Your task to perform on an android device: turn on priority inbox in the gmail app Image 0: 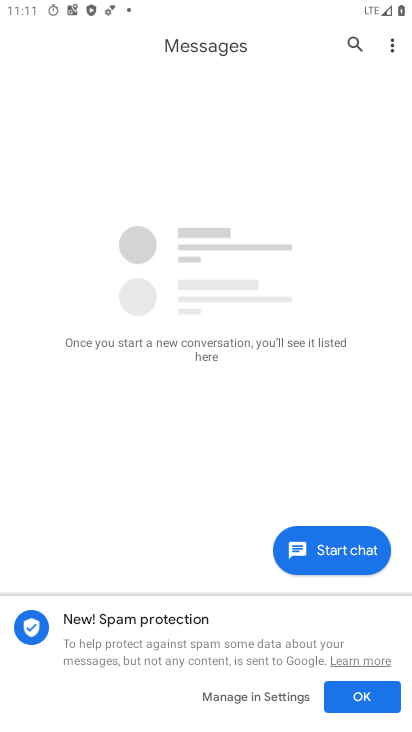
Step 0: press back button
Your task to perform on an android device: turn on priority inbox in the gmail app Image 1: 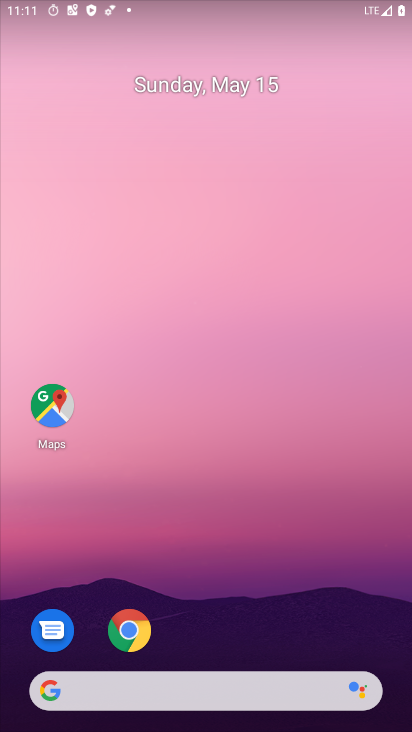
Step 1: drag from (226, 608) to (311, 85)
Your task to perform on an android device: turn on priority inbox in the gmail app Image 2: 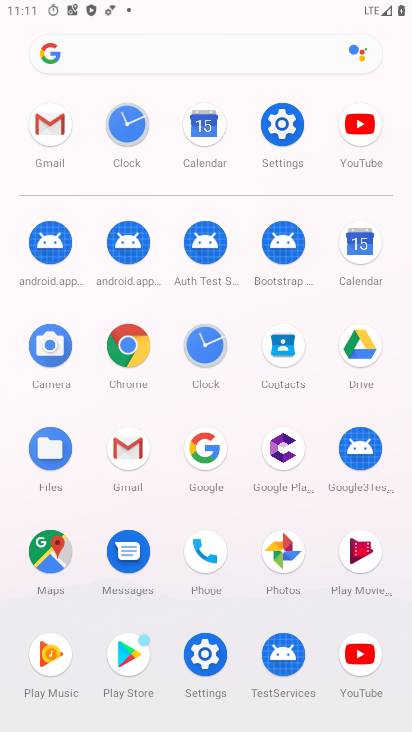
Step 2: click (128, 455)
Your task to perform on an android device: turn on priority inbox in the gmail app Image 3: 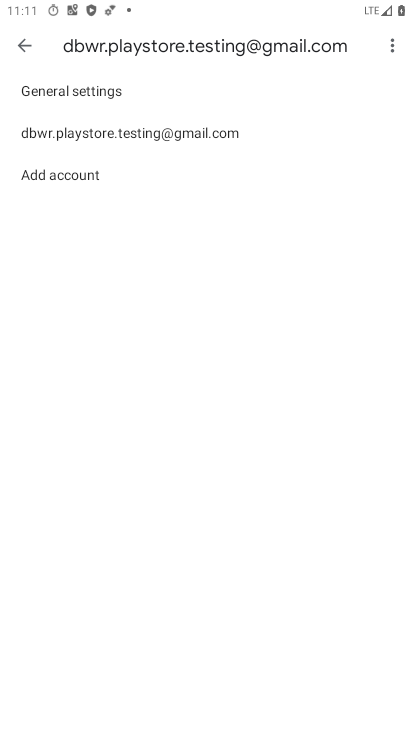
Step 3: click (105, 136)
Your task to perform on an android device: turn on priority inbox in the gmail app Image 4: 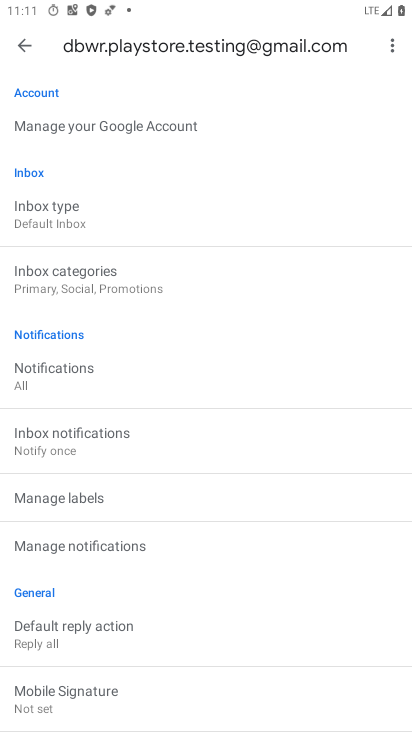
Step 4: click (92, 217)
Your task to perform on an android device: turn on priority inbox in the gmail app Image 5: 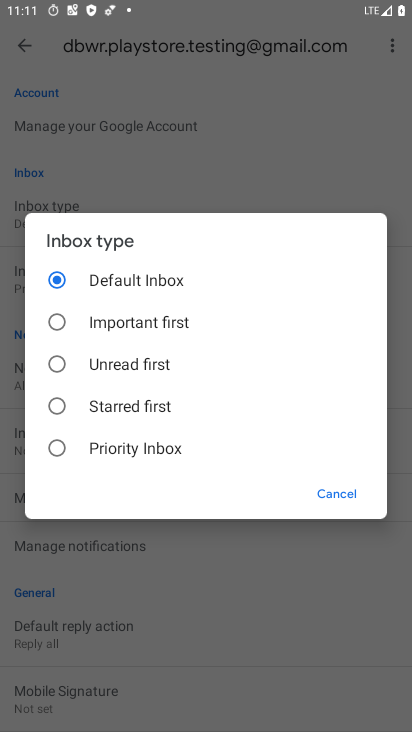
Step 5: click (45, 455)
Your task to perform on an android device: turn on priority inbox in the gmail app Image 6: 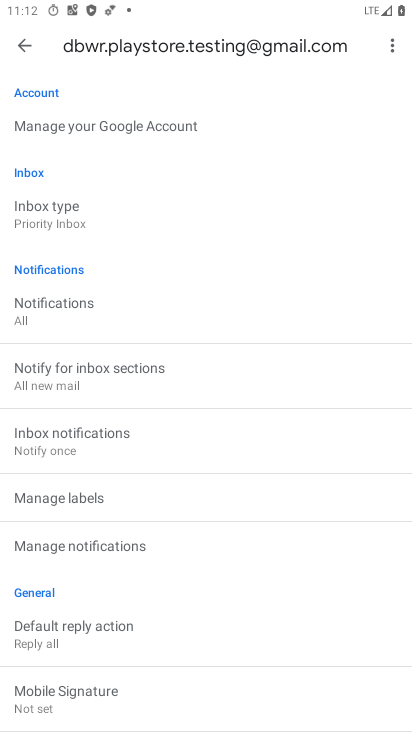
Step 6: task complete